Your task to perform on an android device: open chrome and create a bookmark for the current page Image 0: 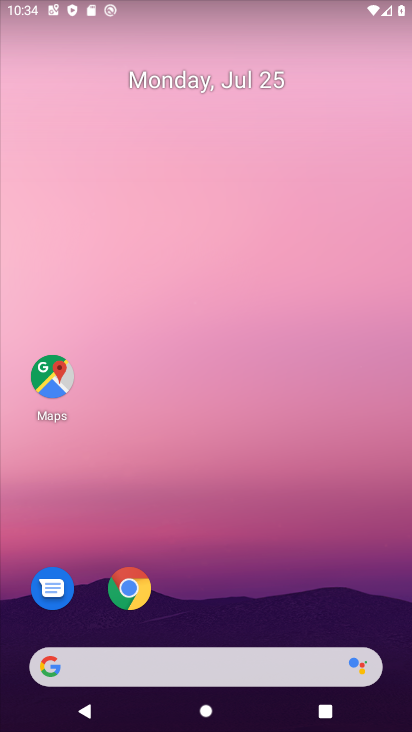
Step 0: click (134, 580)
Your task to perform on an android device: open chrome and create a bookmark for the current page Image 1: 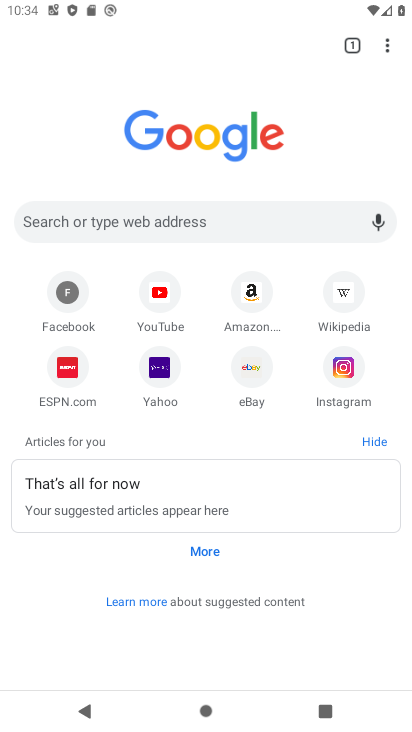
Step 1: click (381, 50)
Your task to perform on an android device: open chrome and create a bookmark for the current page Image 2: 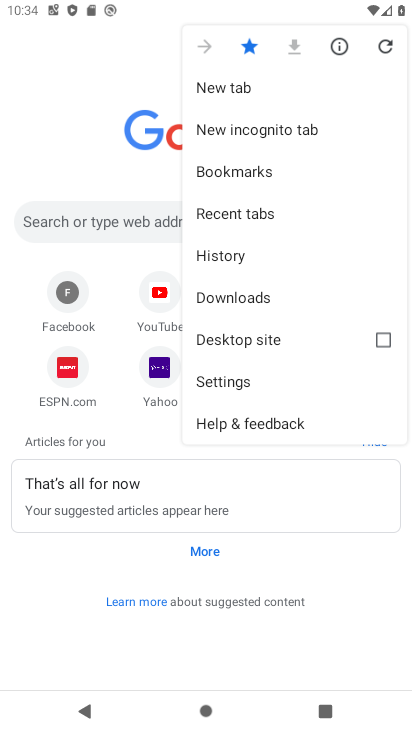
Step 2: task complete